Your task to perform on an android device: change the clock display to show seconds Image 0: 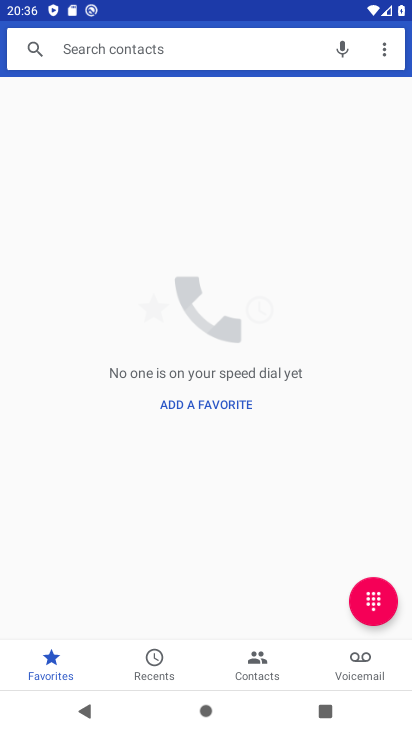
Step 0: press home button
Your task to perform on an android device: change the clock display to show seconds Image 1: 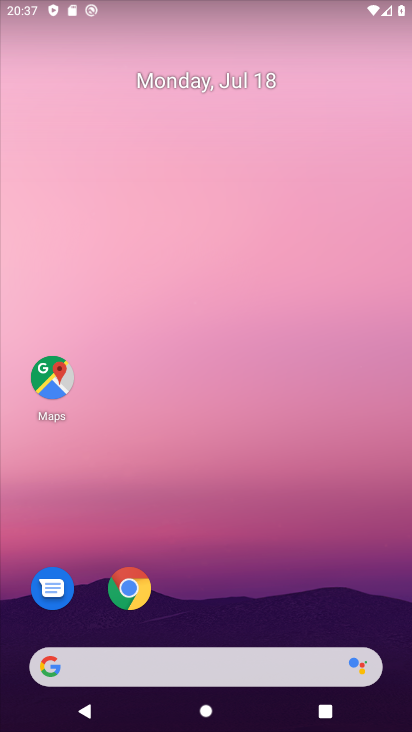
Step 1: drag from (179, 661) to (327, 92)
Your task to perform on an android device: change the clock display to show seconds Image 2: 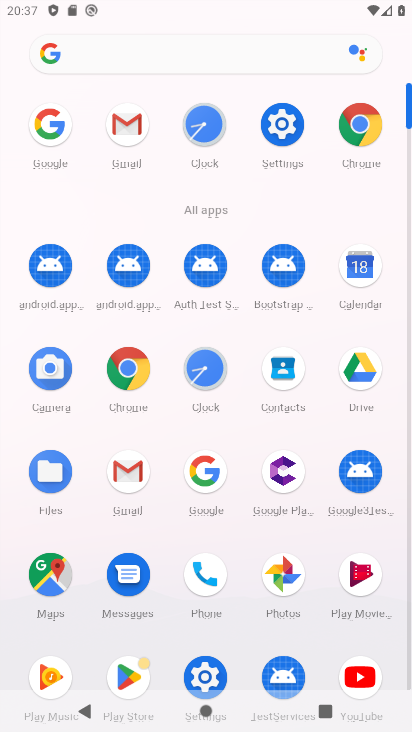
Step 2: click (208, 375)
Your task to perform on an android device: change the clock display to show seconds Image 3: 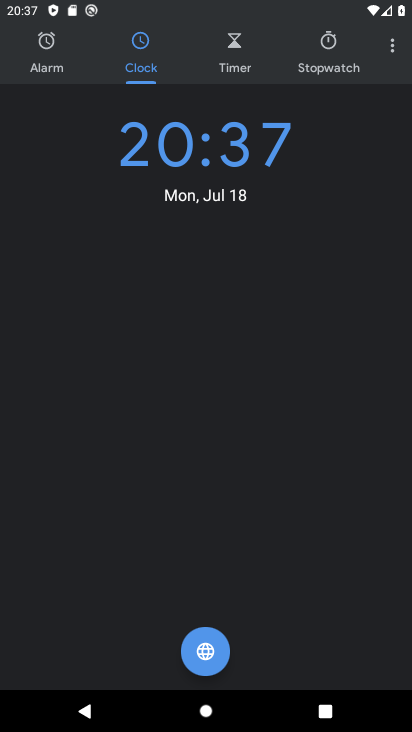
Step 3: click (392, 43)
Your task to perform on an android device: change the clock display to show seconds Image 4: 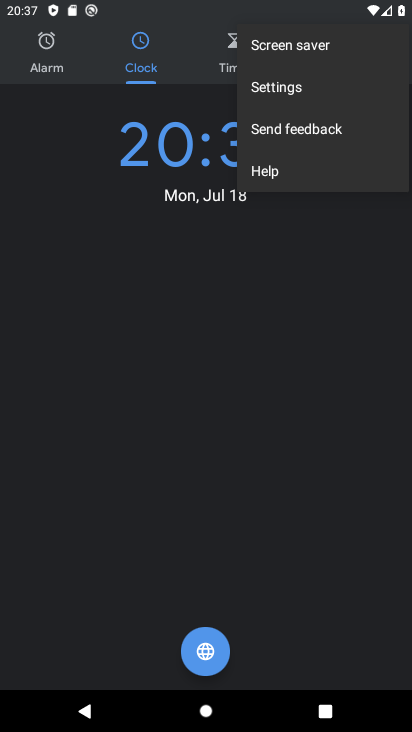
Step 4: click (295, 92)
Your task to perform on an android device: change the clock display to show seconds Image 5: 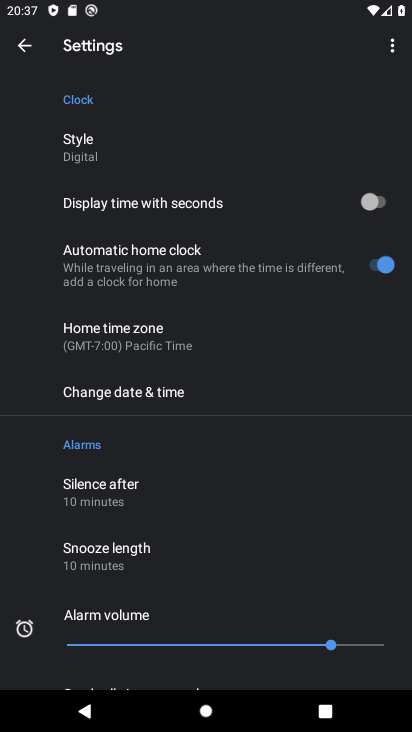
Step 5: click (381, 201)
Your task to perform on an android device: change the clock display to show seconds Image 6: 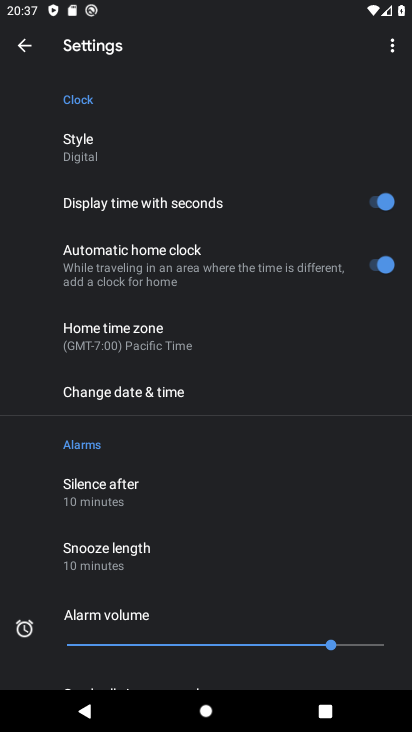
Step 6: task complete